Your task to perform on an android device: Turn off the flashlight Image 0: 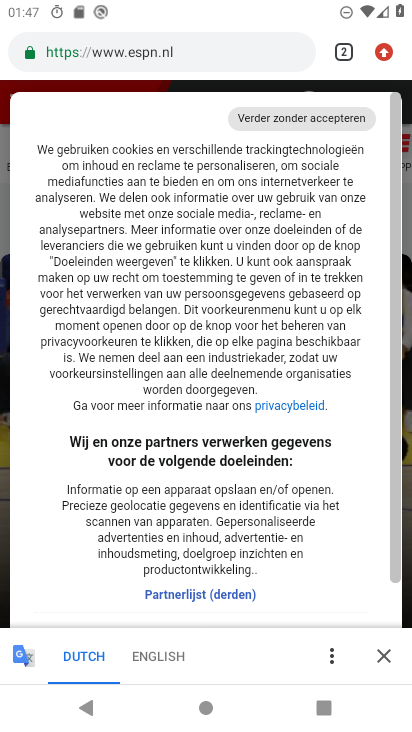
Step 0: press home button
Your task to perform on an android device: Turn off the flashlight Image 1: 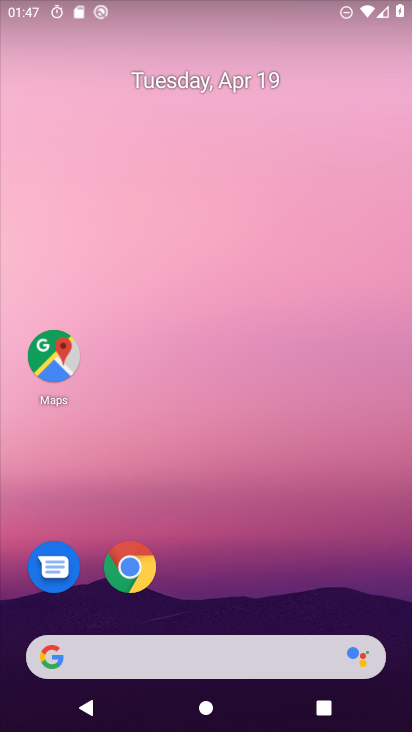
Step 1: task complete